Your task to perform on an android device: Do I have any events this weekend? Image 0: 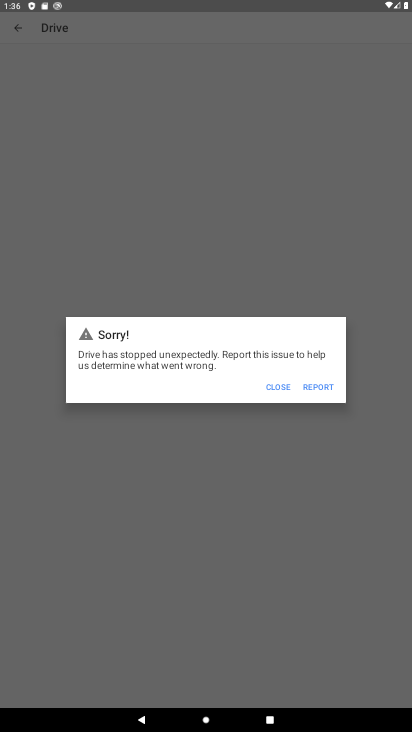
Step 0: press home button
Your task to perform on an android device: Do I have any events this weekend? Image 1: 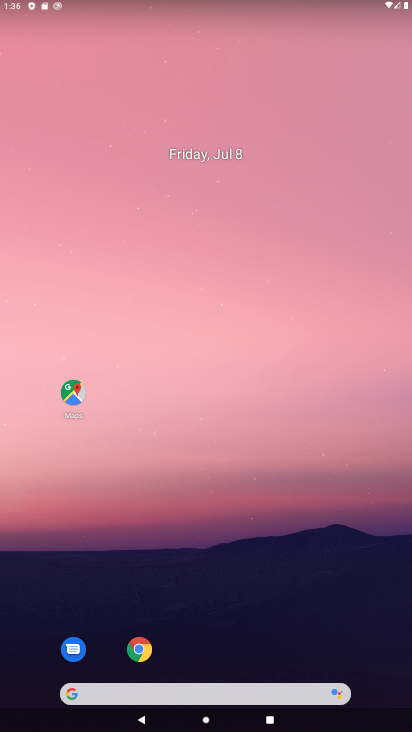
Step 1: drag from (293, 599) to (278, 78)
Your task to perform on an android device: Do I have any events this weekend? Image 2: 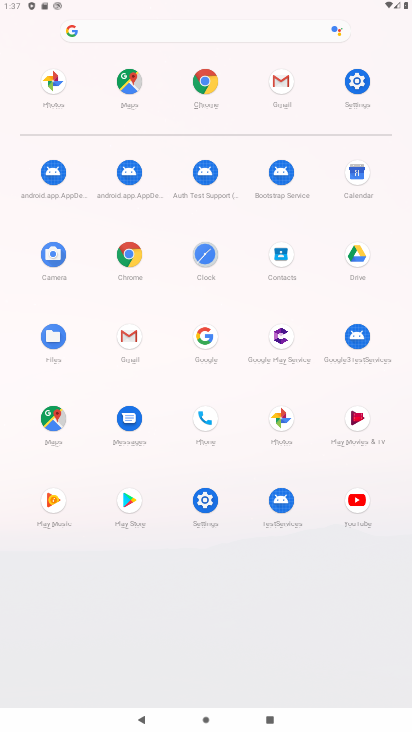
Step 2: click (354, 177)
Your task to perform on an android device: Do I have any events this weekend? Image 3: 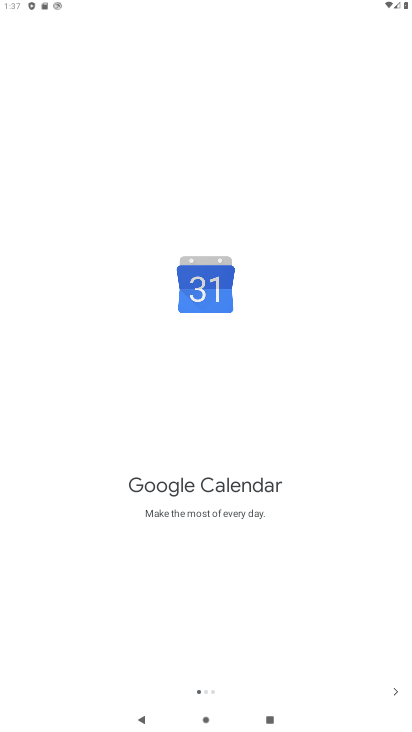
Step 3: click (394, 688)
Your task to perform on an android device: Do I have any events this weekend? Image 4: 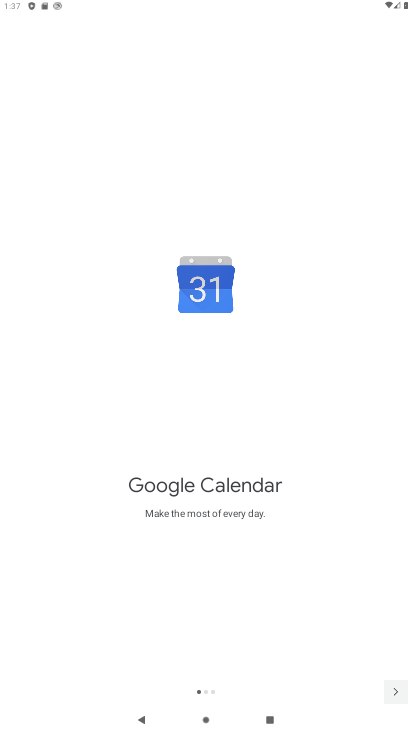
Step 4: click (394, 686)
Your task to perform on an android device: Do I have any events this weekend? Image 5: 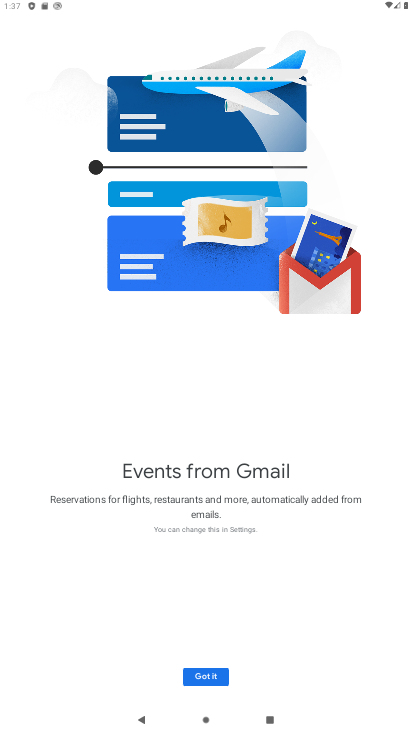
Step 5: click (191, 672)
Your task to perform on an android device: Do I have any events this weekend? Image 6: 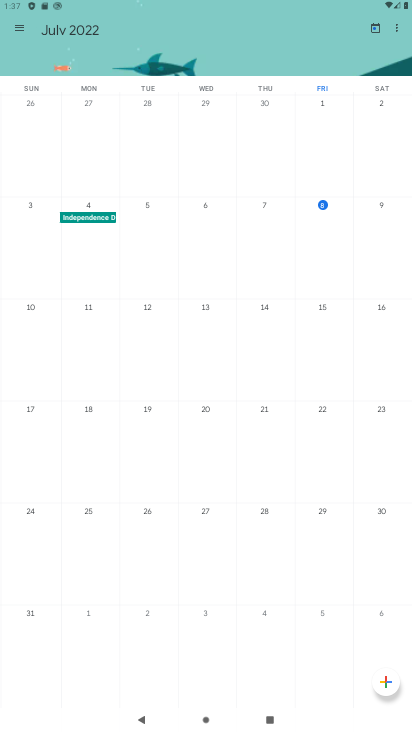
Step 6: click (17, 30)
Your task to perform on an android device: Do I have any events this weekend? Image 7: 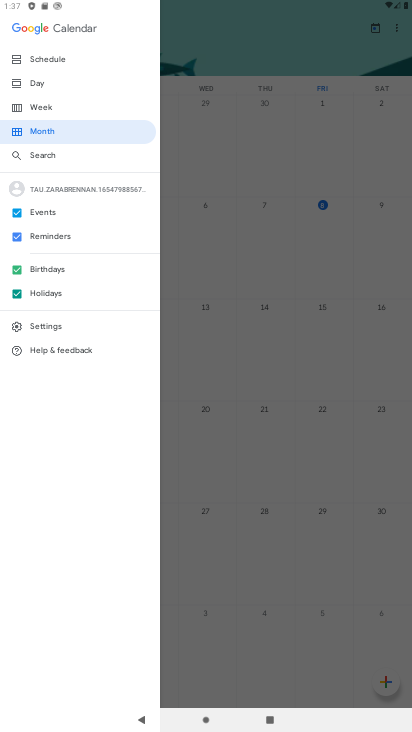
Step 7: click (34, 115)
Your task to perform on an android device: Do I have any events this weekend? Image 8: 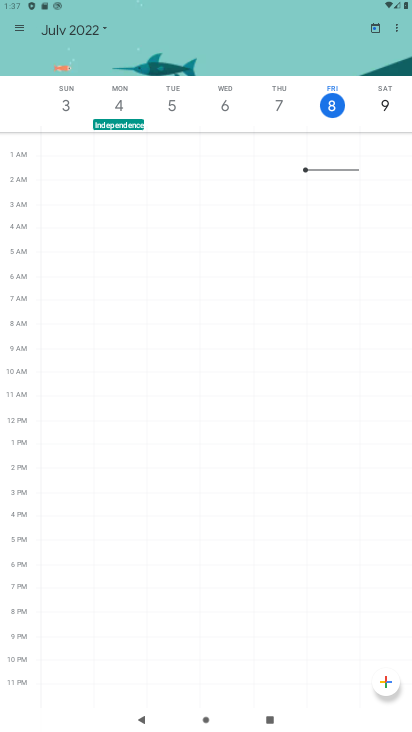
Step 8: task complete